Your task to perform on an android device: Search for Mexican restaurants on Maps Image 0: 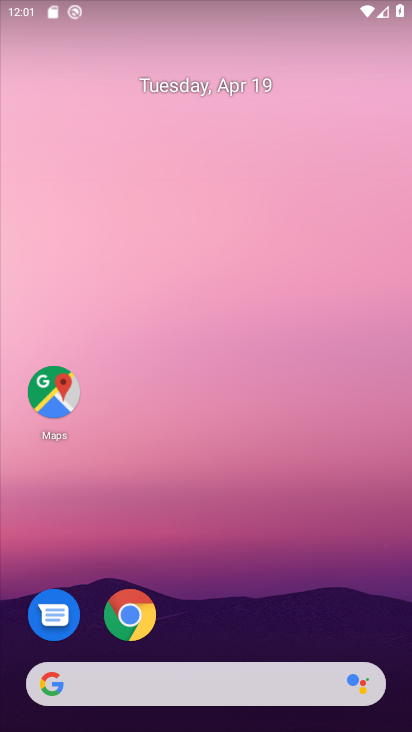
Step 0: click (46, 400)
Your task to perform on an android device: Search for Mexican restaurants on Maps Image 1: 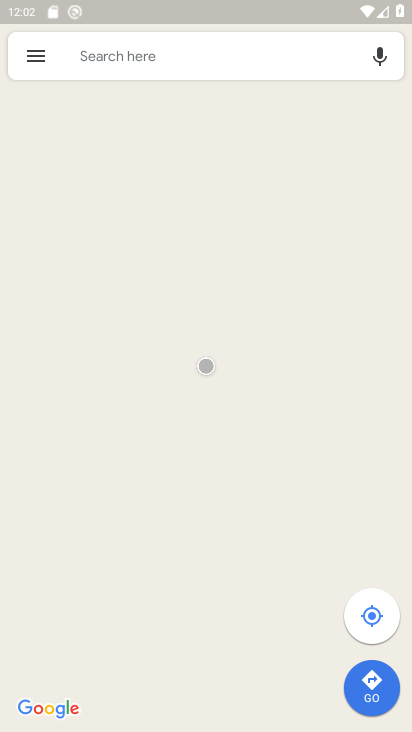
Step 1: click (128, 63)
Your task to perform on an android device: Search for Mexican restaurants on Maps Image 2: 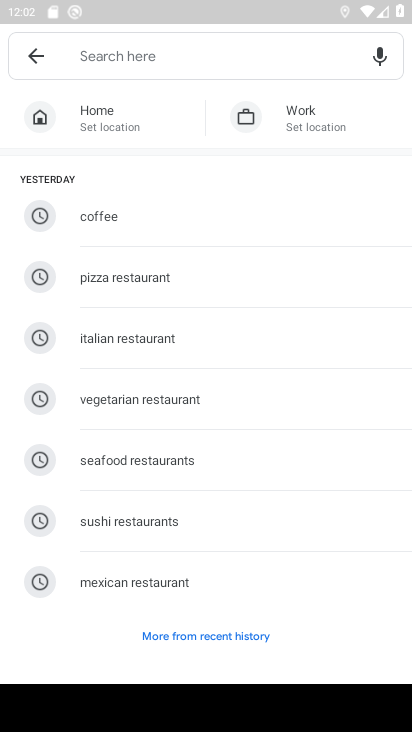
Step 2: click (146, 582)
Your task to perform on an android device: Search for Mexican restaurants on Maps Image 3: 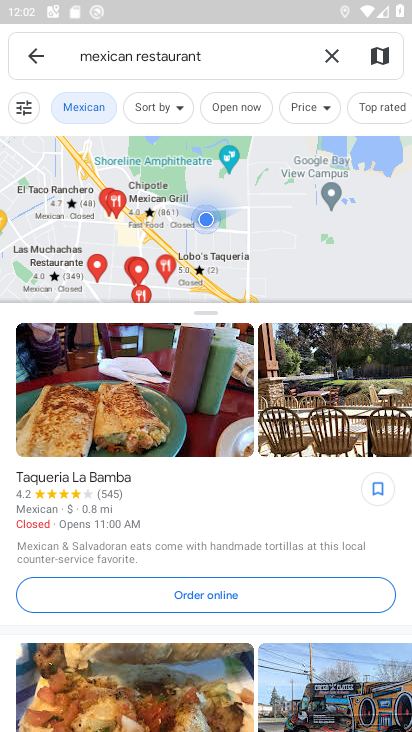
Step 3: task complete